Your task to perform on an android device: Open accessibility settings Image 0: 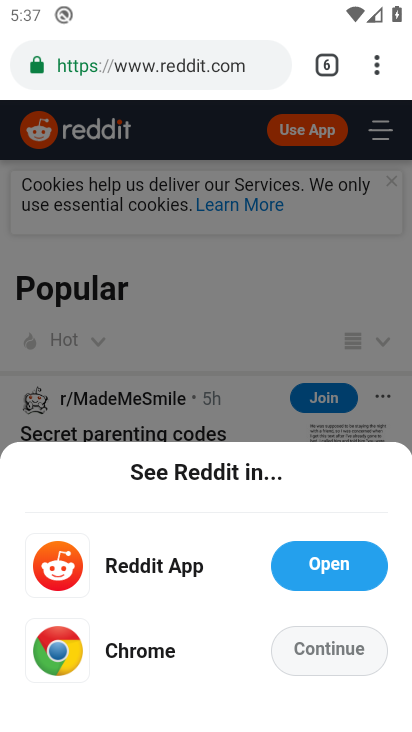
Step 0: press back button
Your task to perform on an android device: Open accessibility settings Image 1: 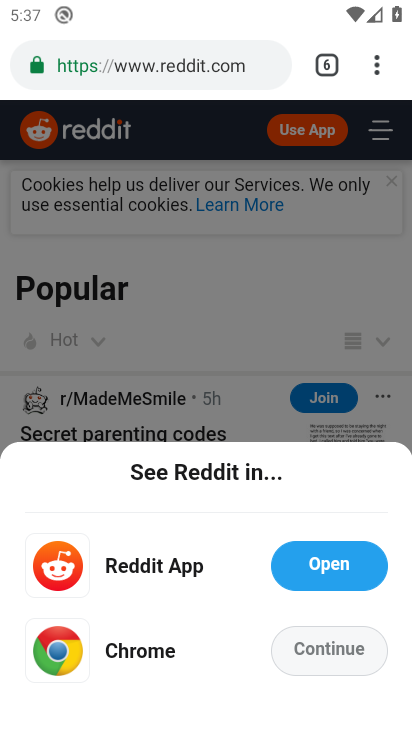
Step 1: press back button
Your task to perform on an android device: Open accessibility settings Image 2: 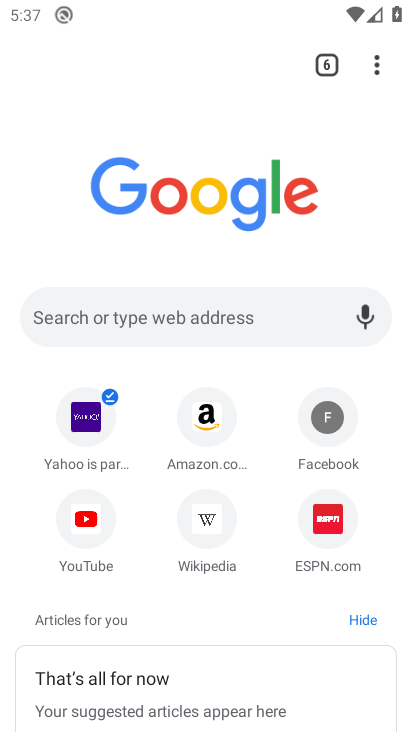
Step 2: press back button
Your task to perform on an android device: Open accessibility settings Image 3: 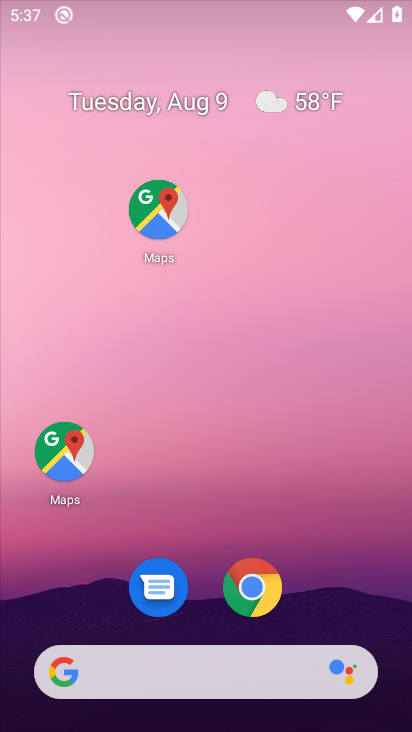
Step 3: click (375, 67)
Your task to perform on an android device: Open accessibility settings Image 4: 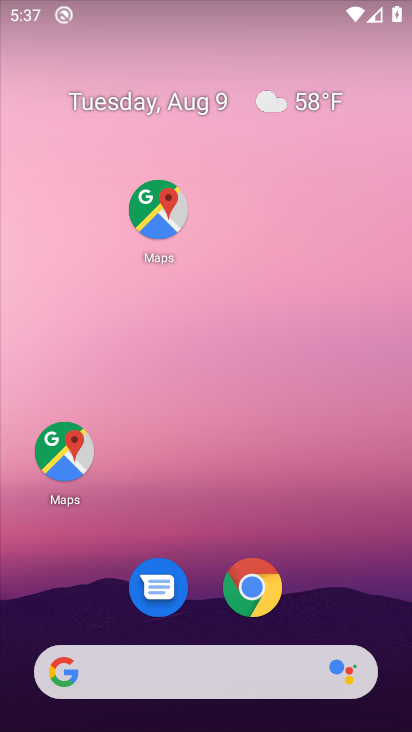
Step 4: press home button
Your task to perform on an android device: Open accessibility settings Image 5: 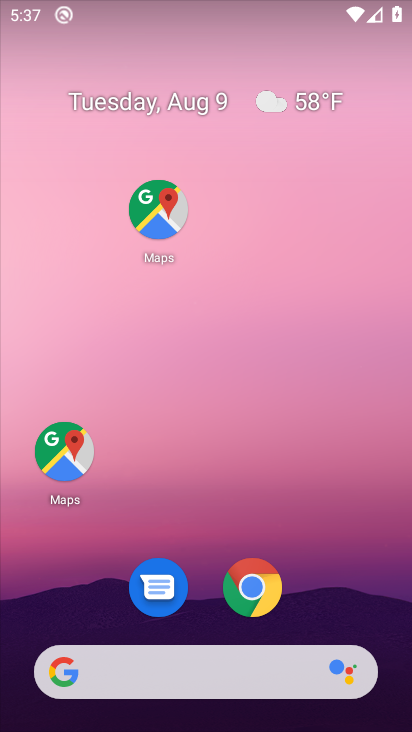
Step 5: drag from (228, 678) to (204, 196)
Your task to perform on an android device: Open accessibility settings Image 6: 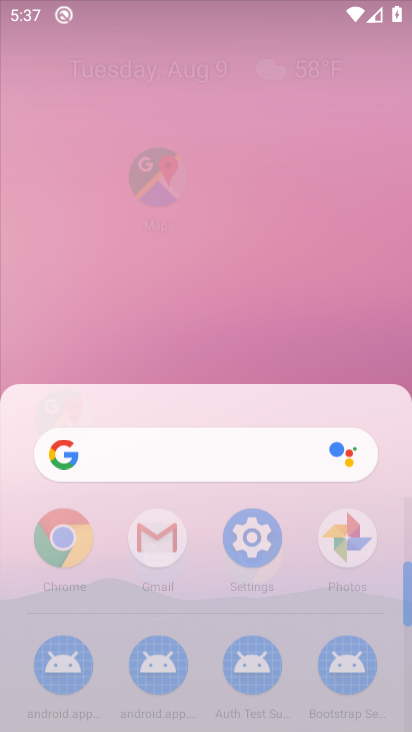
Step 6: drag from (242, 613) to (232, 146)
Your task to perform on an android device: Open accessibility settings Image 7: 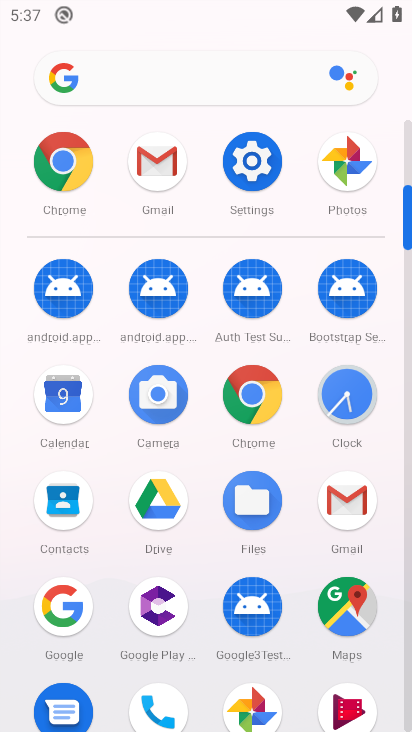
Step 7: click (253, 168)
Your task to perform on an android device: Open accessibility settings Image 8: 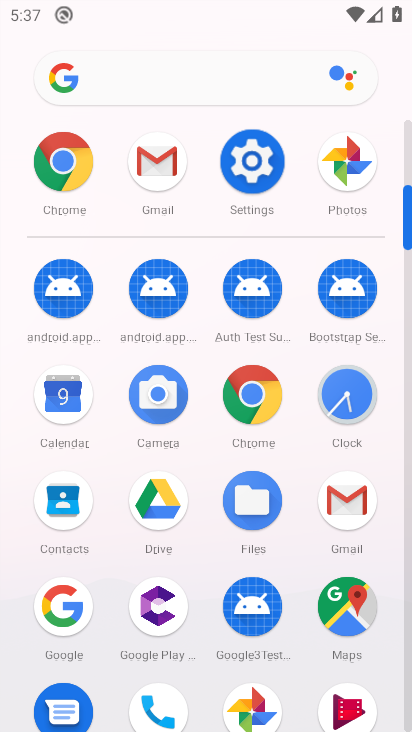
Step 8: click (254, 168)
Your task to perform on an android device: Open accessibility settings Image 9: 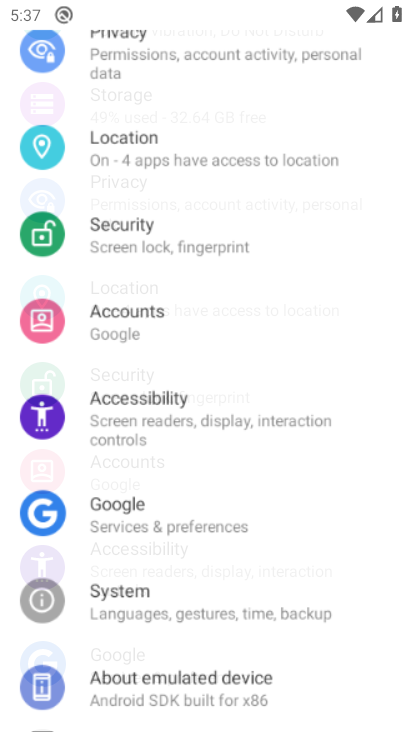
Step 9: click (255, 168)
Your task to perform on an android device: Open accessibility settings Image 10: 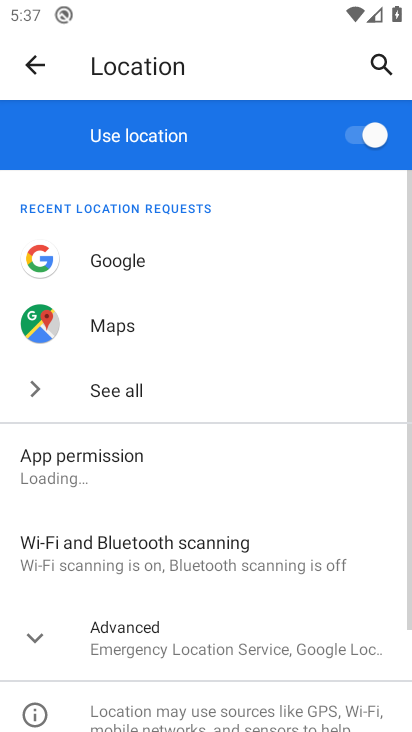
Step 10: click (28, 60)
Your task to perform on an android device: Open accessibility settings Image 11: 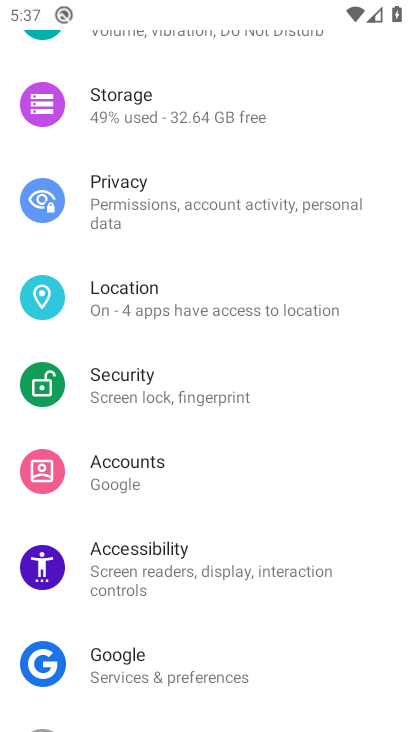
Step 11: click (123, 540)
Your task to perform on an android device: Open accessibility settings Image 12: 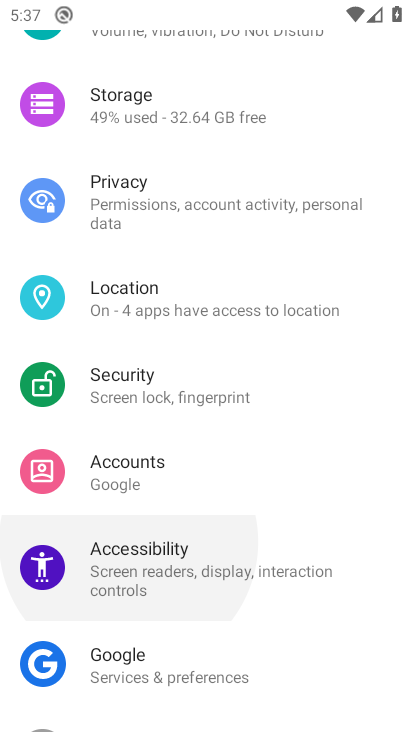
Step 12: click (119, 544)
Your task to perform on an android device: Open accessibility settings Image 13: 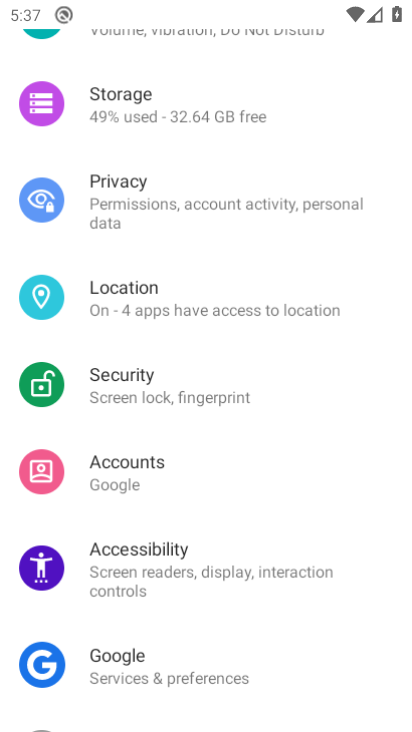
Step 13: click (118, 549)
Your task to perform on an android device: Open accessibility settings Image 14: 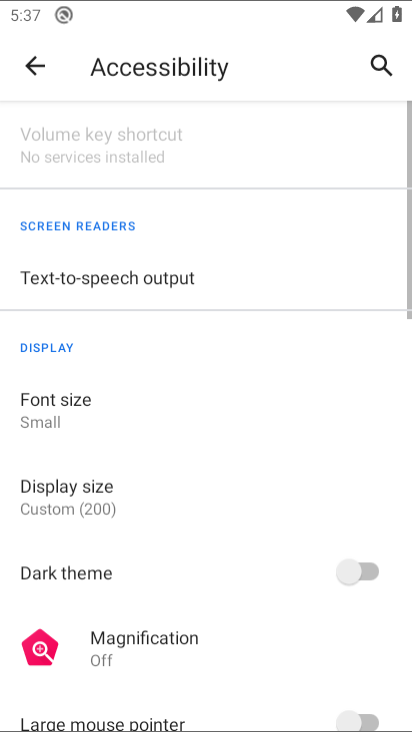
Step 14: click (119, 550)
Your task to perform on an android device: Open accessibility settings Image 15: 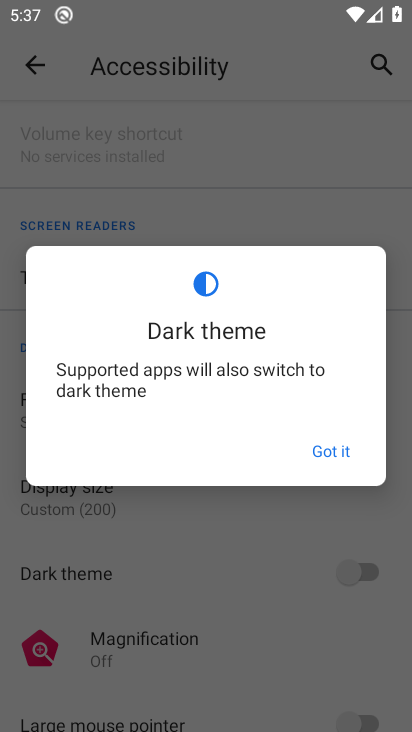
Step 15: click (211, 571)
Your task to perform on an android device: Open accessibility settings Image 16: 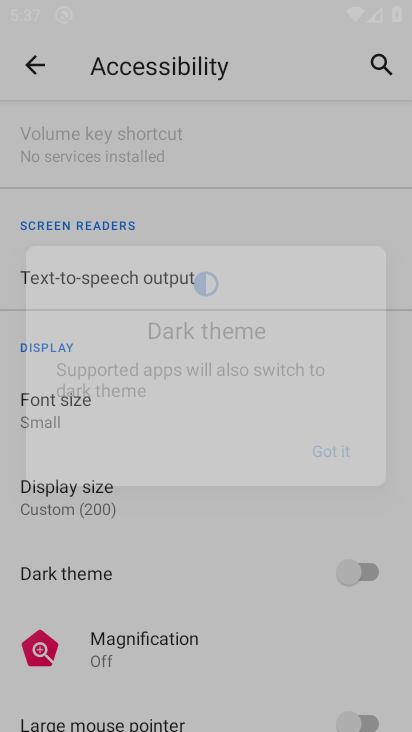
Step 16: click (211, 571)
Your task to perform on an android device: Open accessibility settings Image 17: 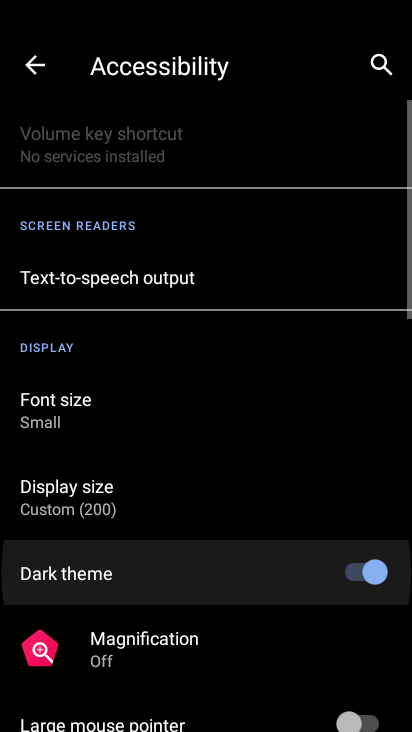
Step 17: task complete